Your task to perform on an android device: Clear the cart on bestbuy.com. Add razer naga to the cart on bestbuy.com, then select checkout. Image 0: 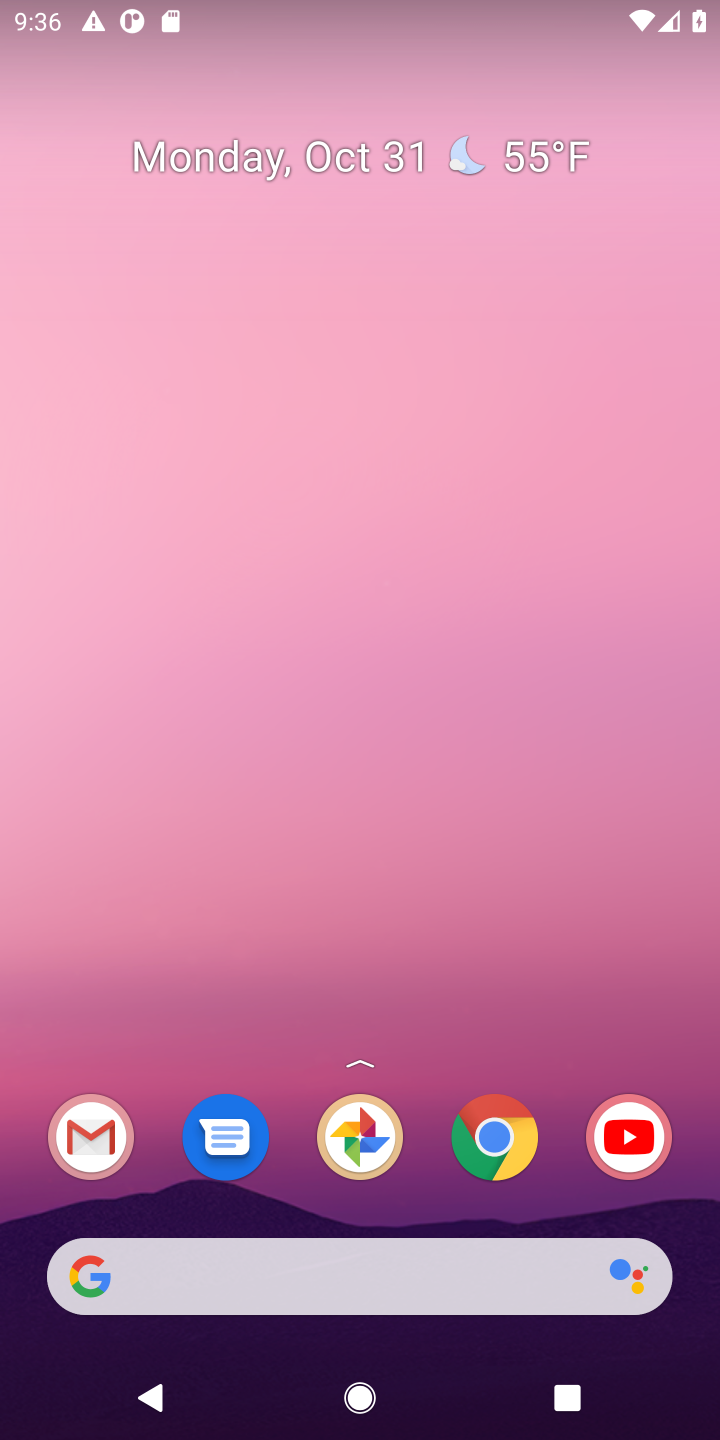
Step 0: click (485, 1153)
Your task to perform on an android device: Clear the cart on bestbuy.com. Add razer naga to the cart on bestbuy.com, then select checkout. Image 1: 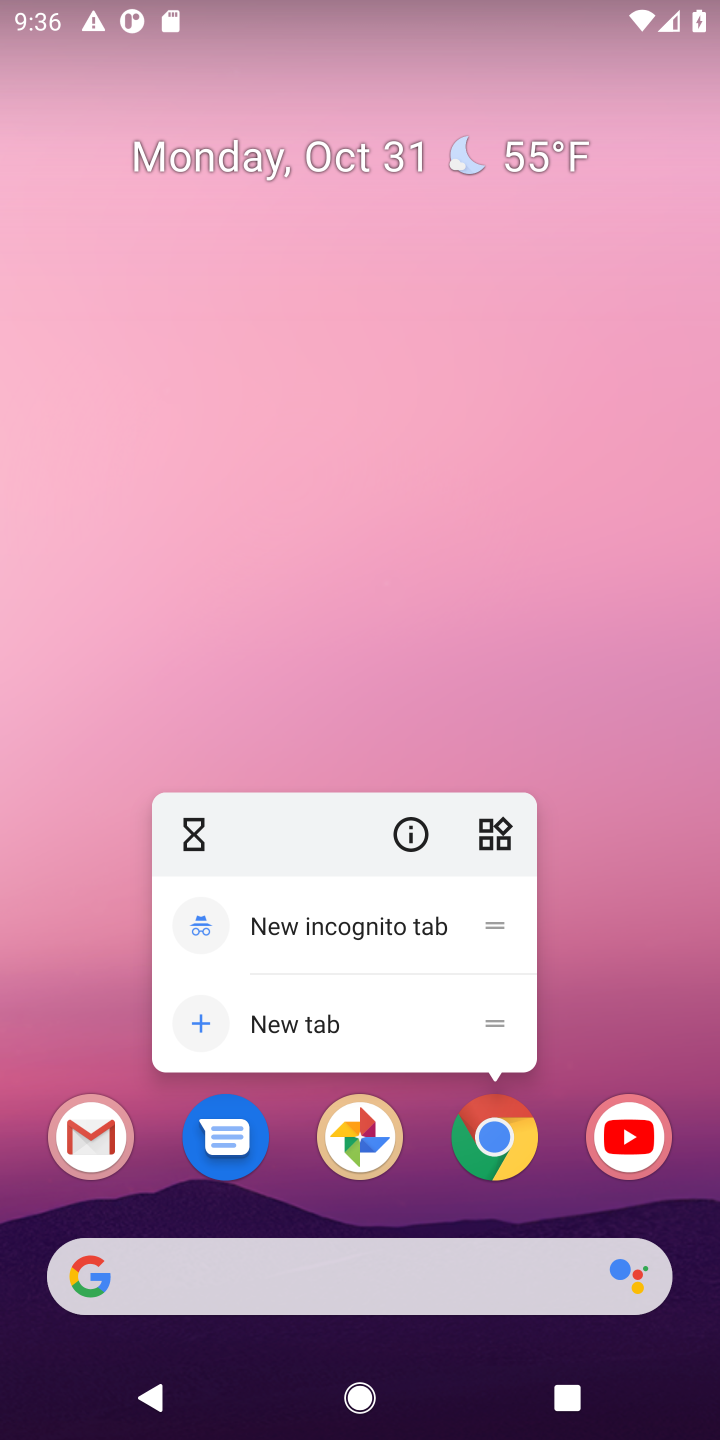
Step 1: click (497, 1153)
Your task to perform on an android device: Clear the cart on bestbuy.com. Add razer naga to the cart on bestbuy.com, then select checkout. Image 2: 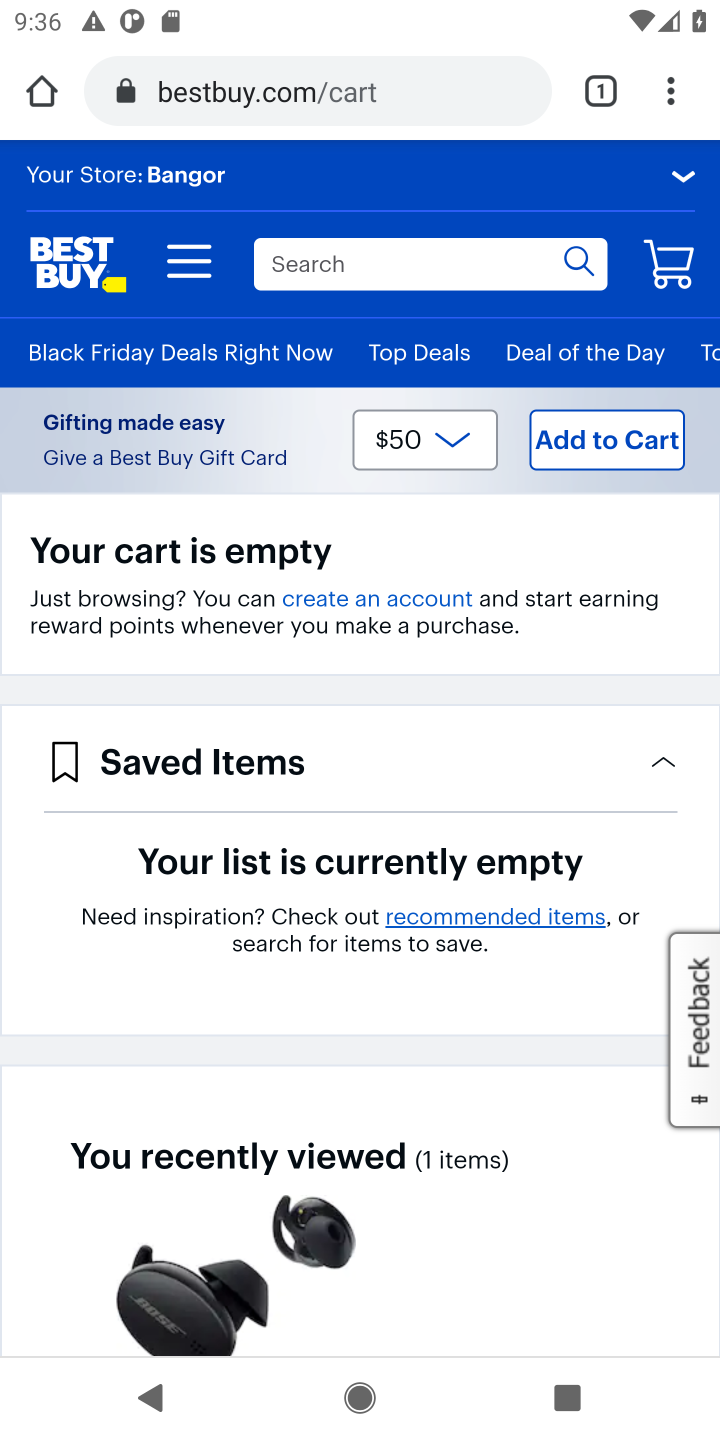
Step 2: click (303, 106)
Your task to perform on an android device: Clear the cart on bestbuy.com. Add razer naga to the cart on bestbuy.com, then select checkout. Image 3: 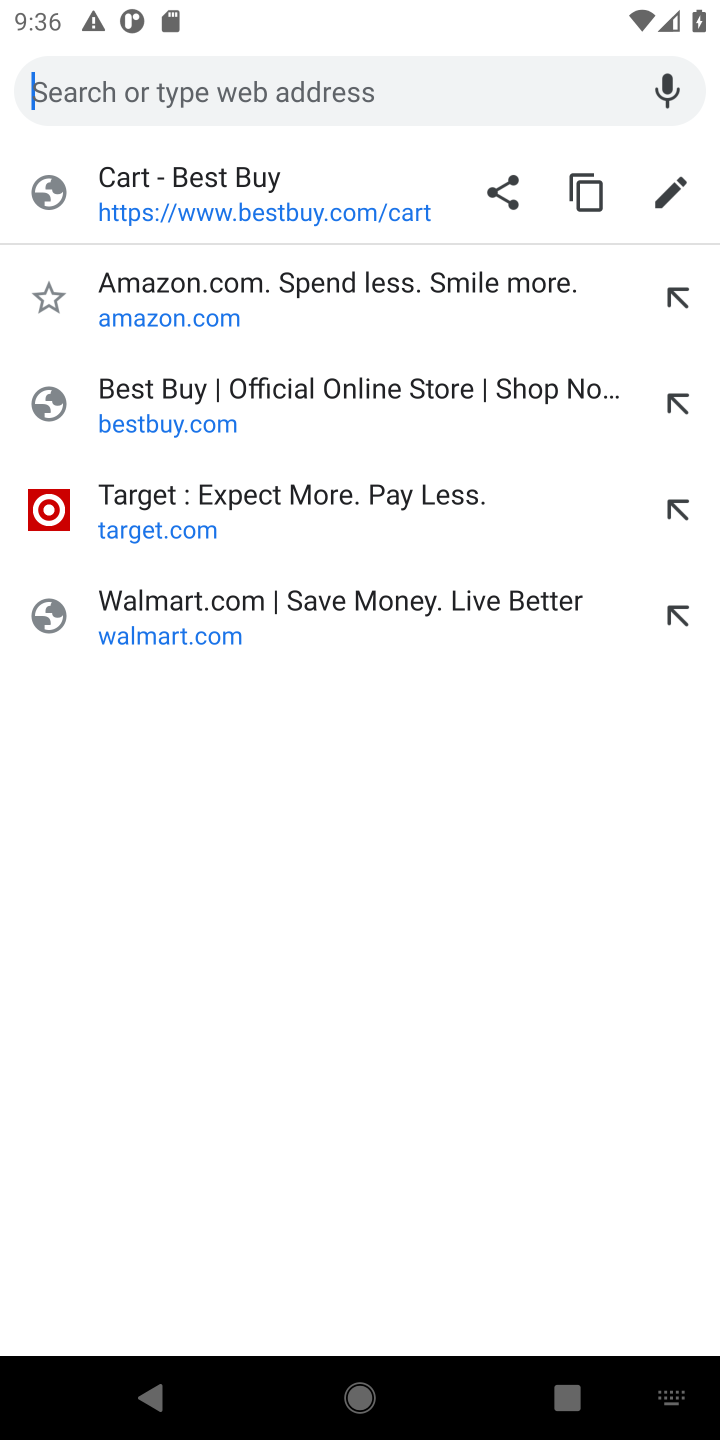
Step 3: click (217, 193)
Your task to perform on an android device: Clear the cart on bestbuy.com. Add razer naga to the cart on bestbuy.com, then select checkout. Image 4: 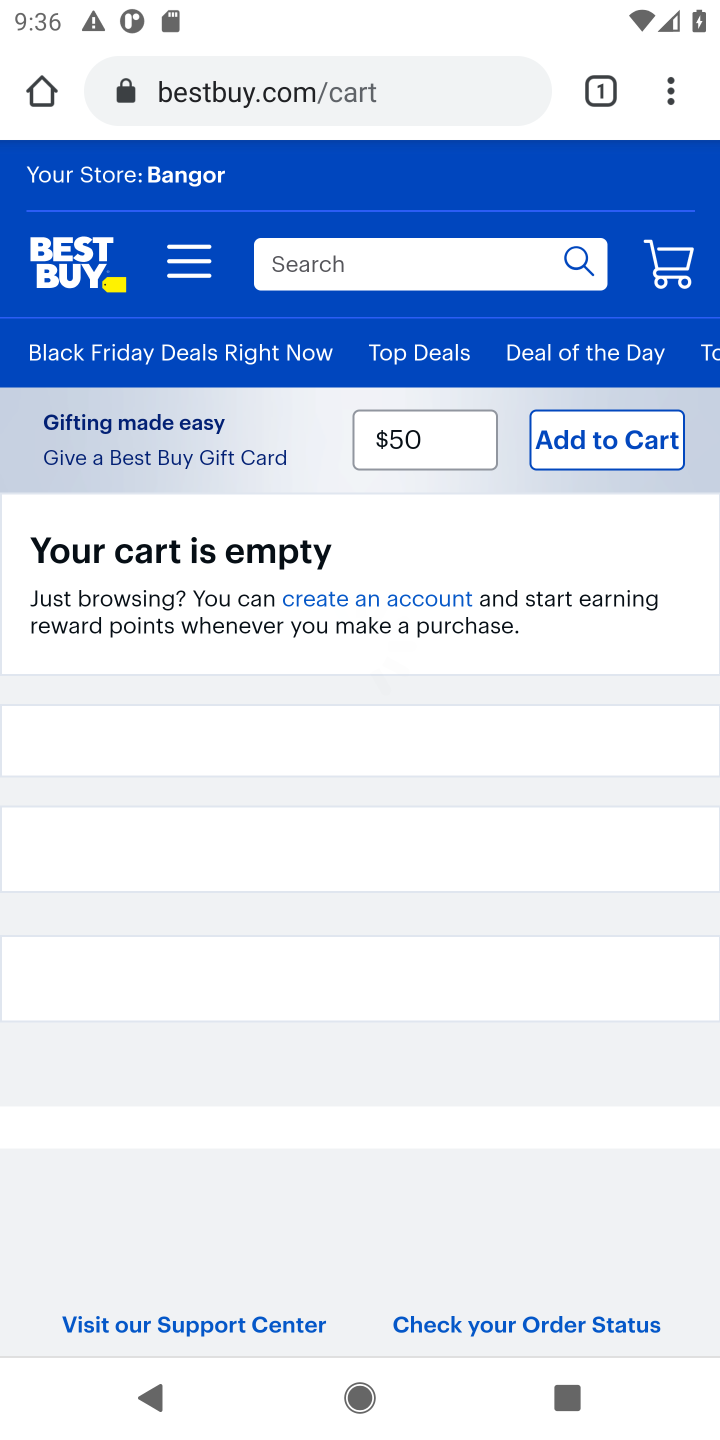
Step 4: click (426, 272)
Your task to perform on an android device: Clear the cart on bestbuy.com. Add razer naga to the cart on bestbuy.com, then select checkout. Image 5: 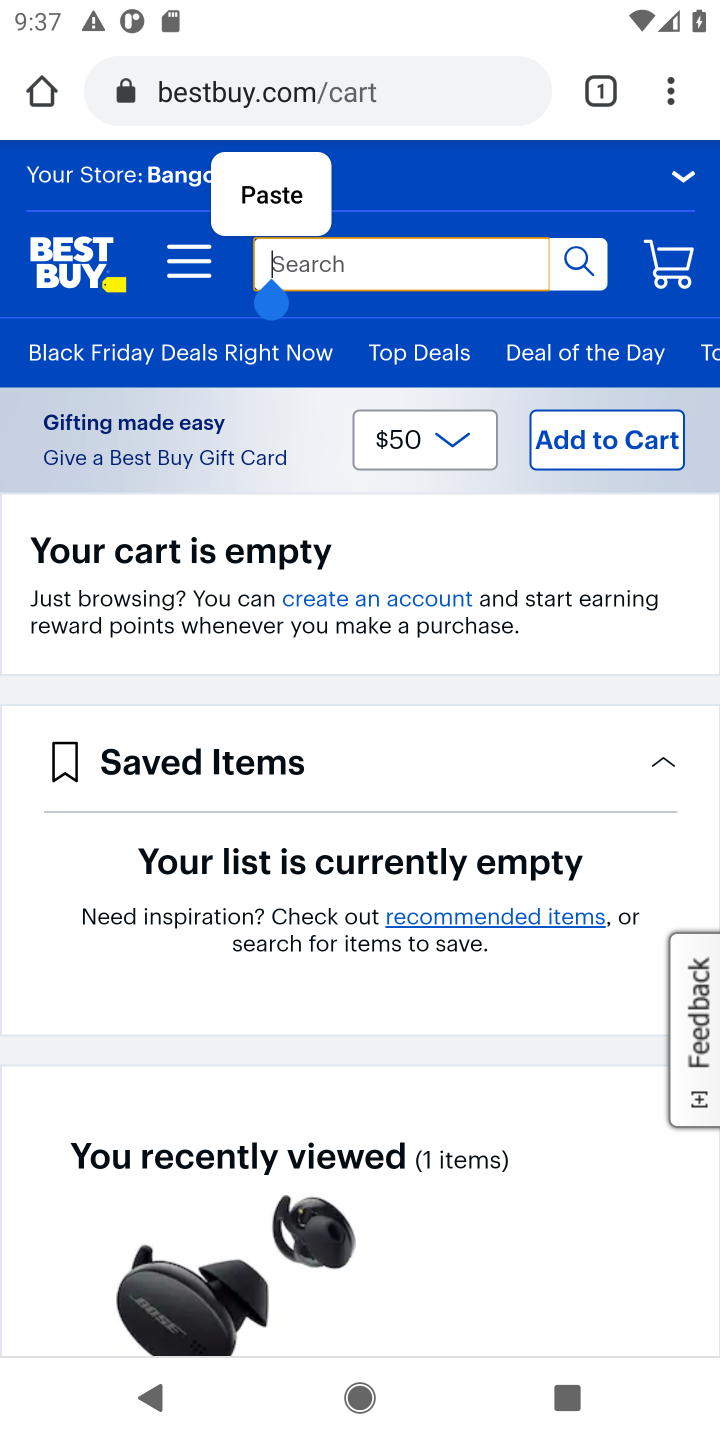
Step 5: click (407, 278)
Your task to perform on an android device: Clear the cart on bestbuy.com. Add razer naga to the cart on bestbuy.com, then select checkout. Image 6: 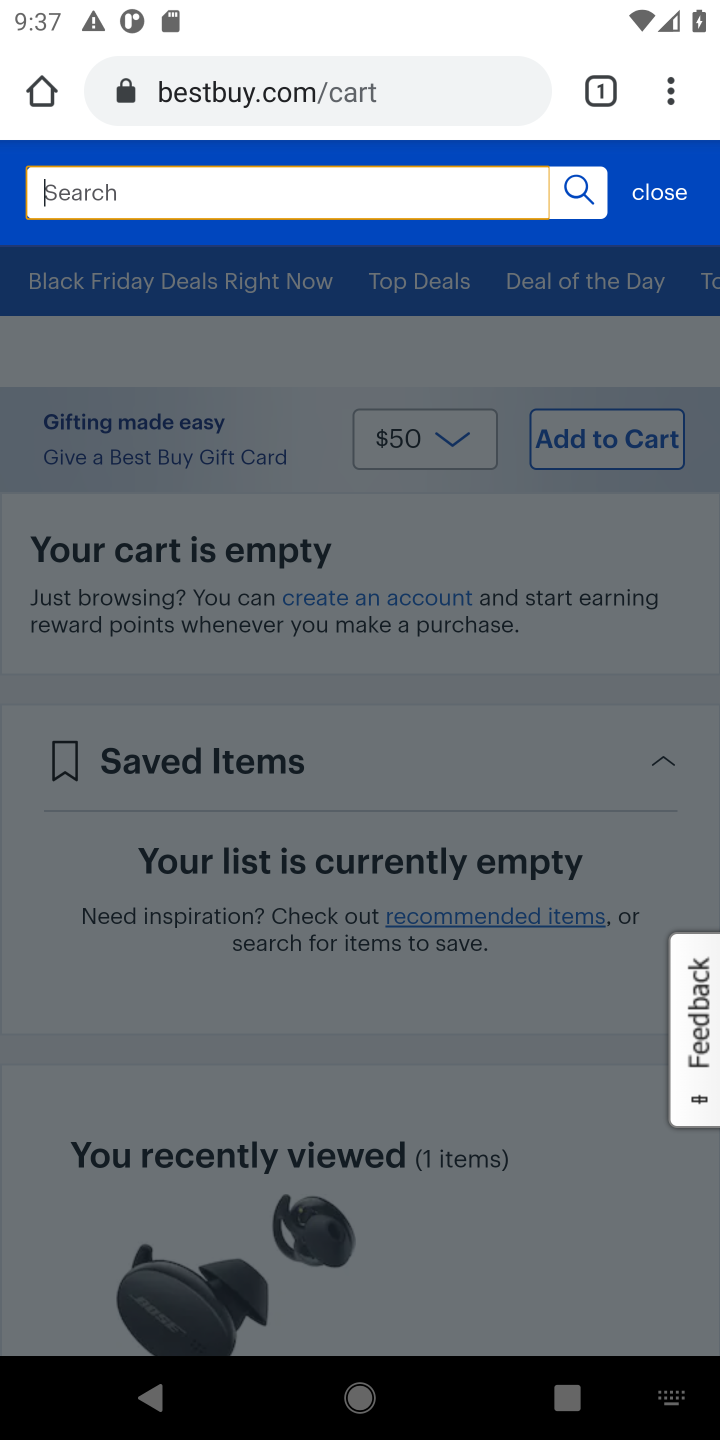
Step 6: type "razer naga"
Your task to perform on an android device: Clear the cart on bestbuy.com. Add razer naga to the cart on bestbuy.com, then select checkout. Image 7: 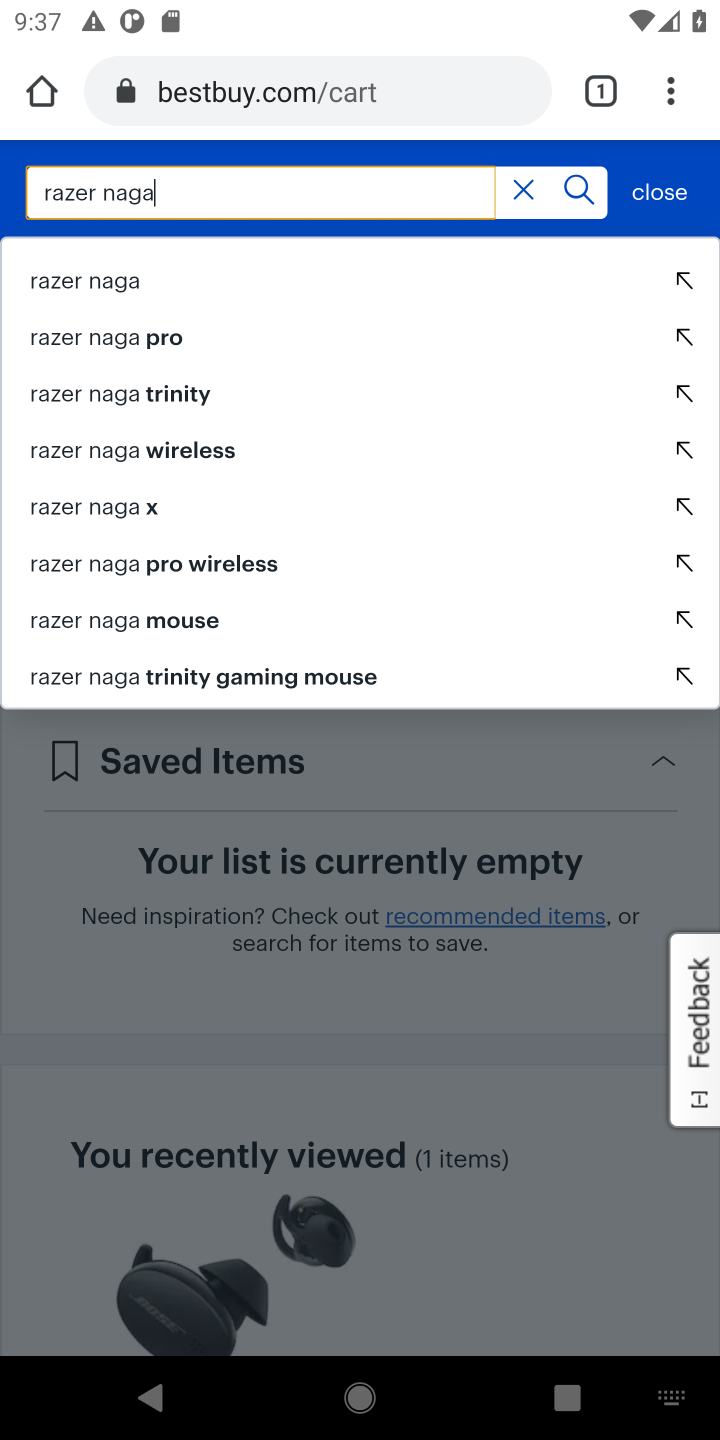
Step 7: click (31, 283)
Your task to perform on an android device: Clear the cart on bestbuy.com. Add razer naga to the cart on bestbuy.com, then select checkout. Image 8: 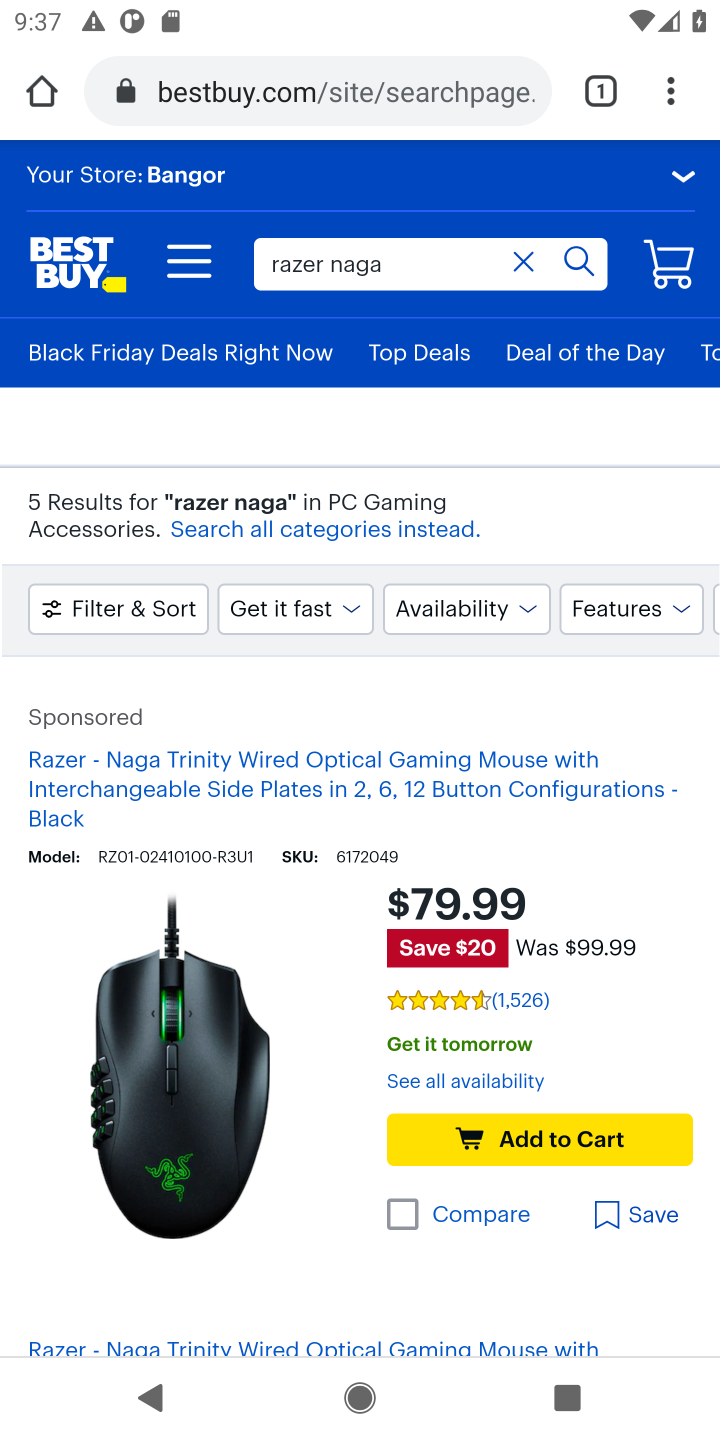
Step 8: click (203, 1136)
Your task to perform on an android device: Clear the cart on bestbuy.com. Add razer naga to the cart on bestbuy.com, then select checkout. Image 9: 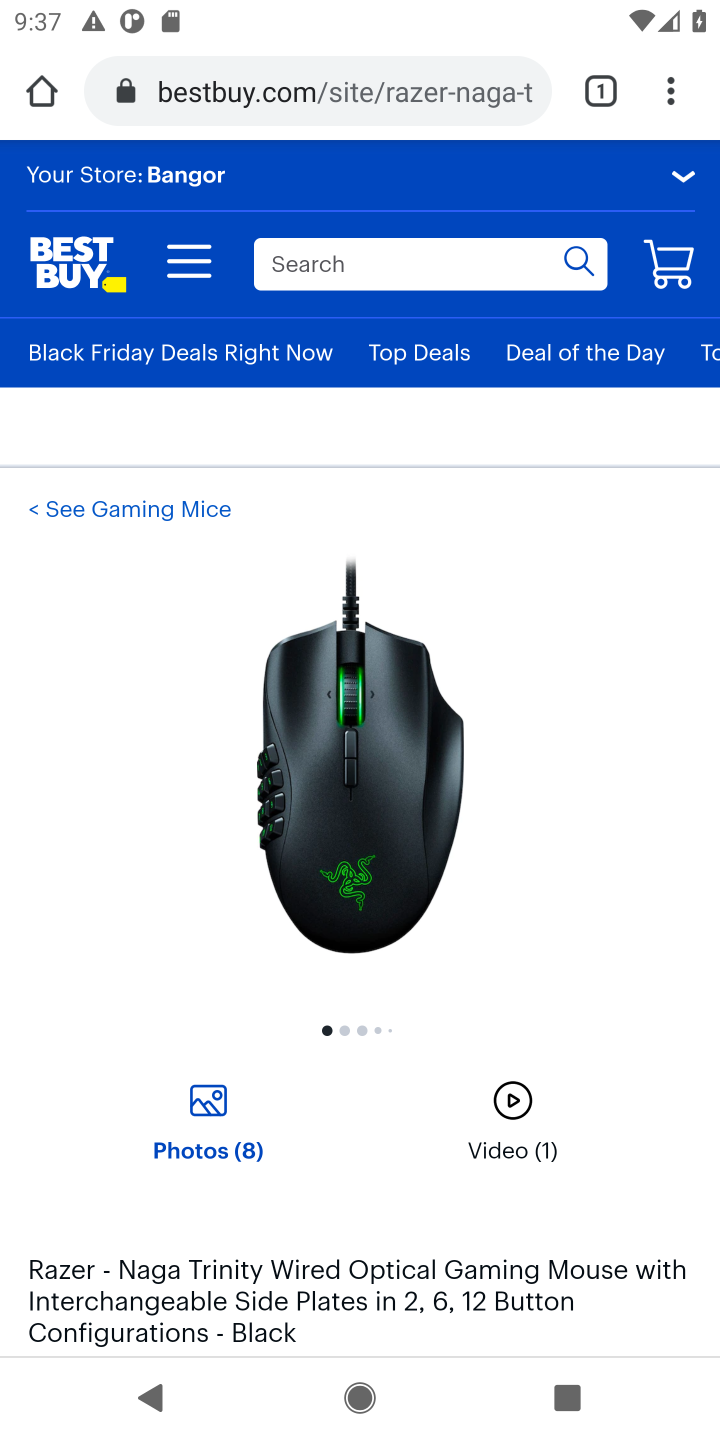
Step 9: drag from (415, 1054) to (407, 509)
Your task to perform on an android device: Clear the cart on bestbuy.com. Add razer naga to the cart on bestbuy.com, then select checkout. Image 10: 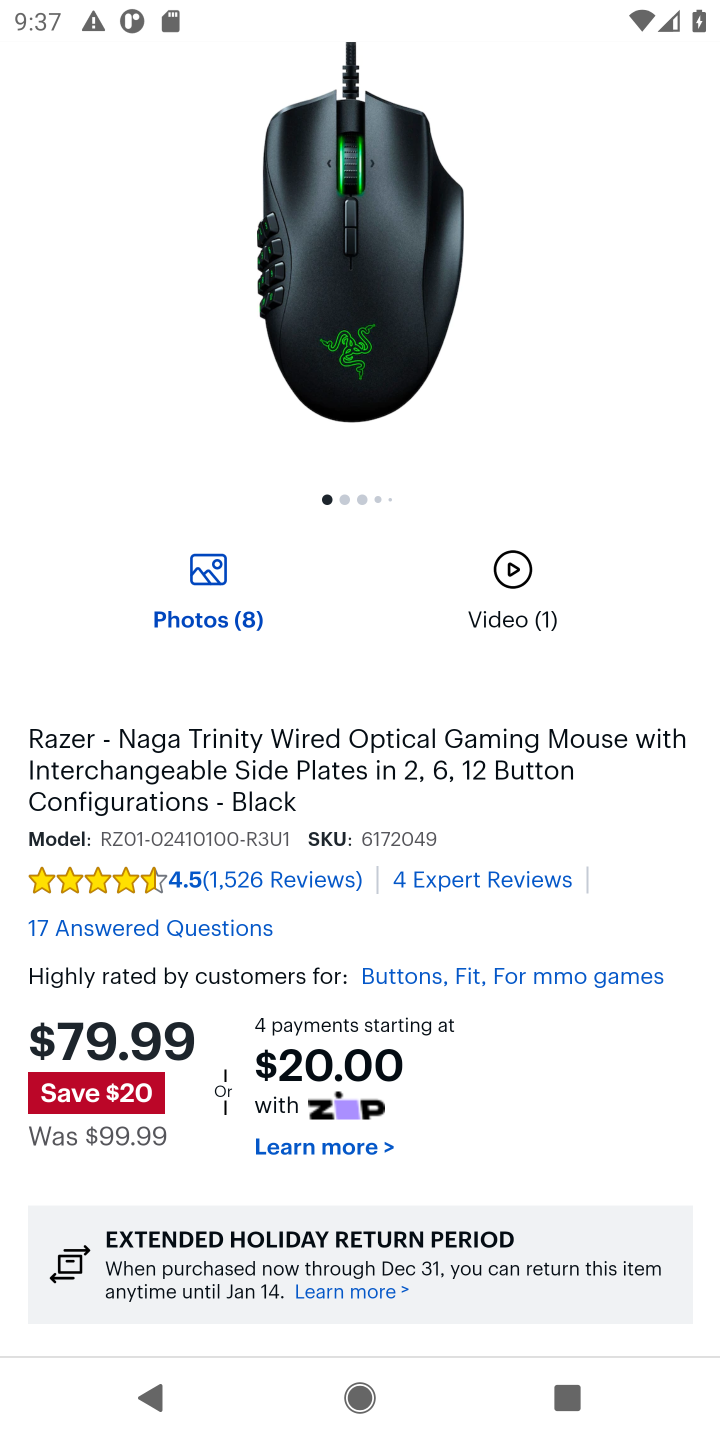
Step 10: drag from (311, 1103) to (323, 465)
Your task to perform on an android device: Clear the cart on bestbuy.com. Add razer naga to the cart on bestbuy.com, then select checkout. Image 11: 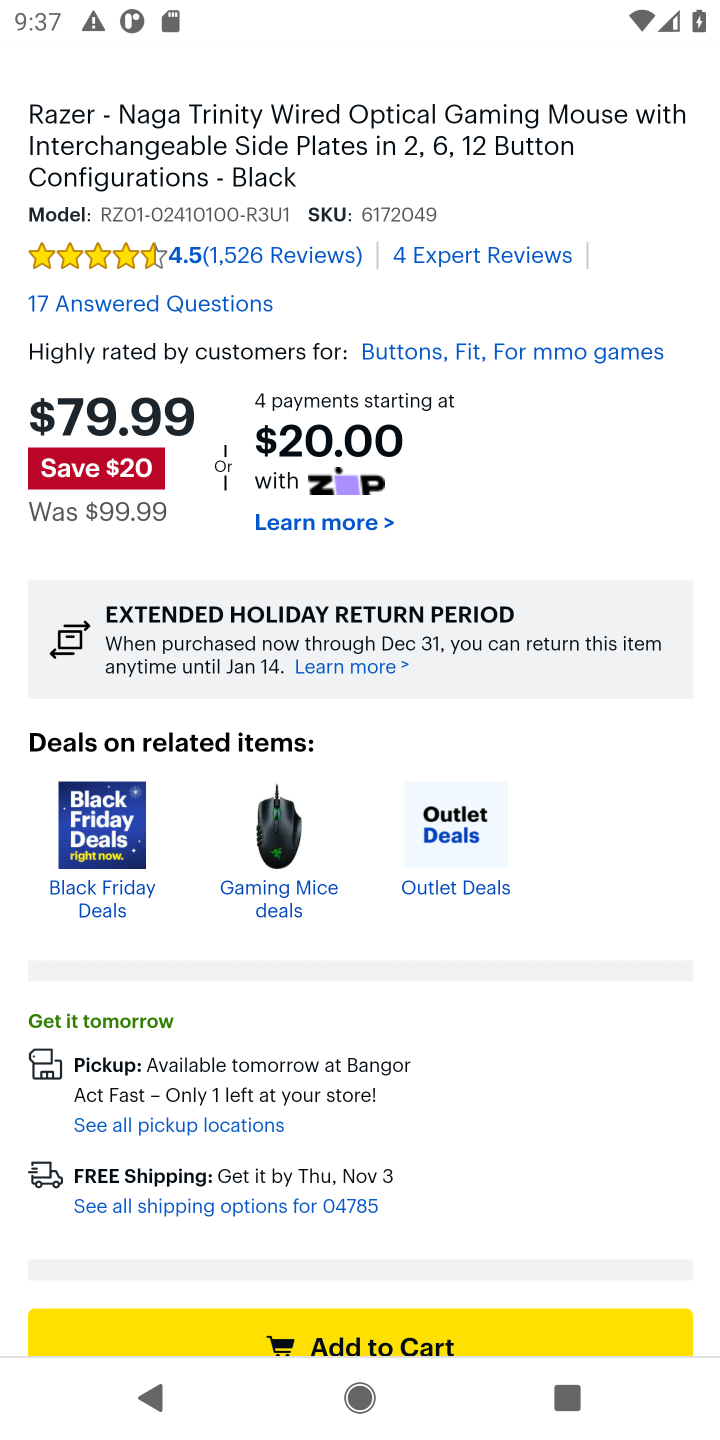
Step 11: drag from (320, 1028) to (340, 522)
Your task to perform on an android device: Clear the cart on bestbuy.com. Add razer naga to the cart on bestbuy.com, then select checkout. Image 12: 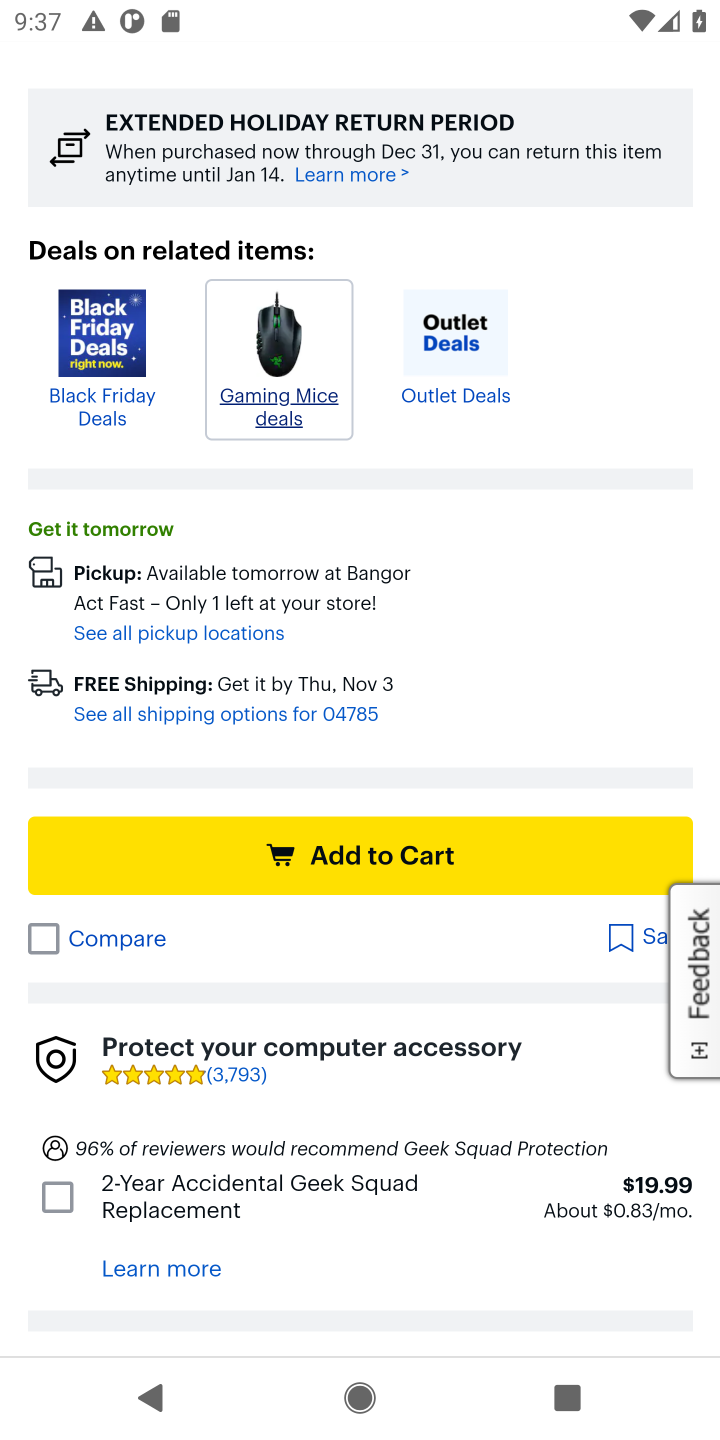
Step 12: click (331, 860)
Your task to perform on an android device: Clear the cart on bestbuy.com. Add razer naga to the cart on bestbuy.com, then select checkout. Image 13: 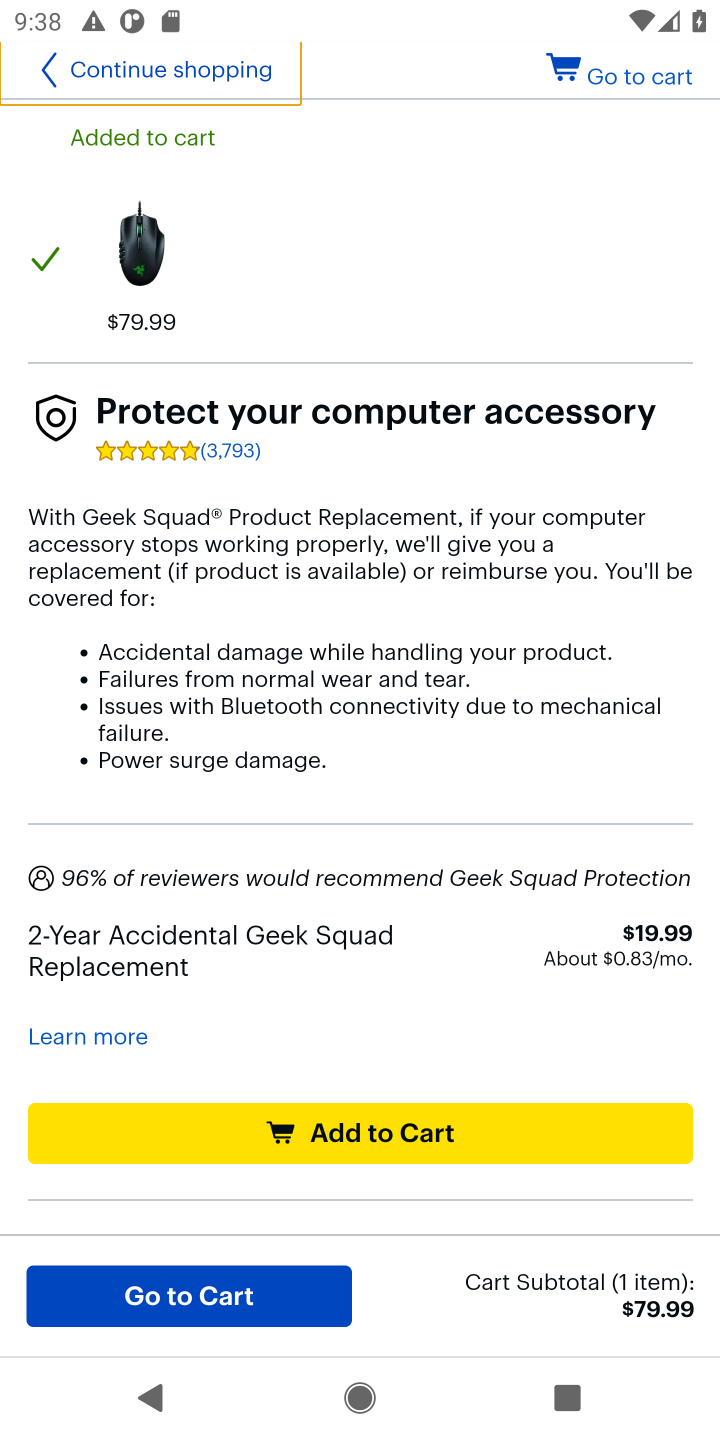
Step 13: drag from (348, 633) to (274, 1046)
Your task to perform on an android device: Clear the cart on bestbuy.com. Add razer naga to the cart on bestbuy.com, then select checkout. Image 14: 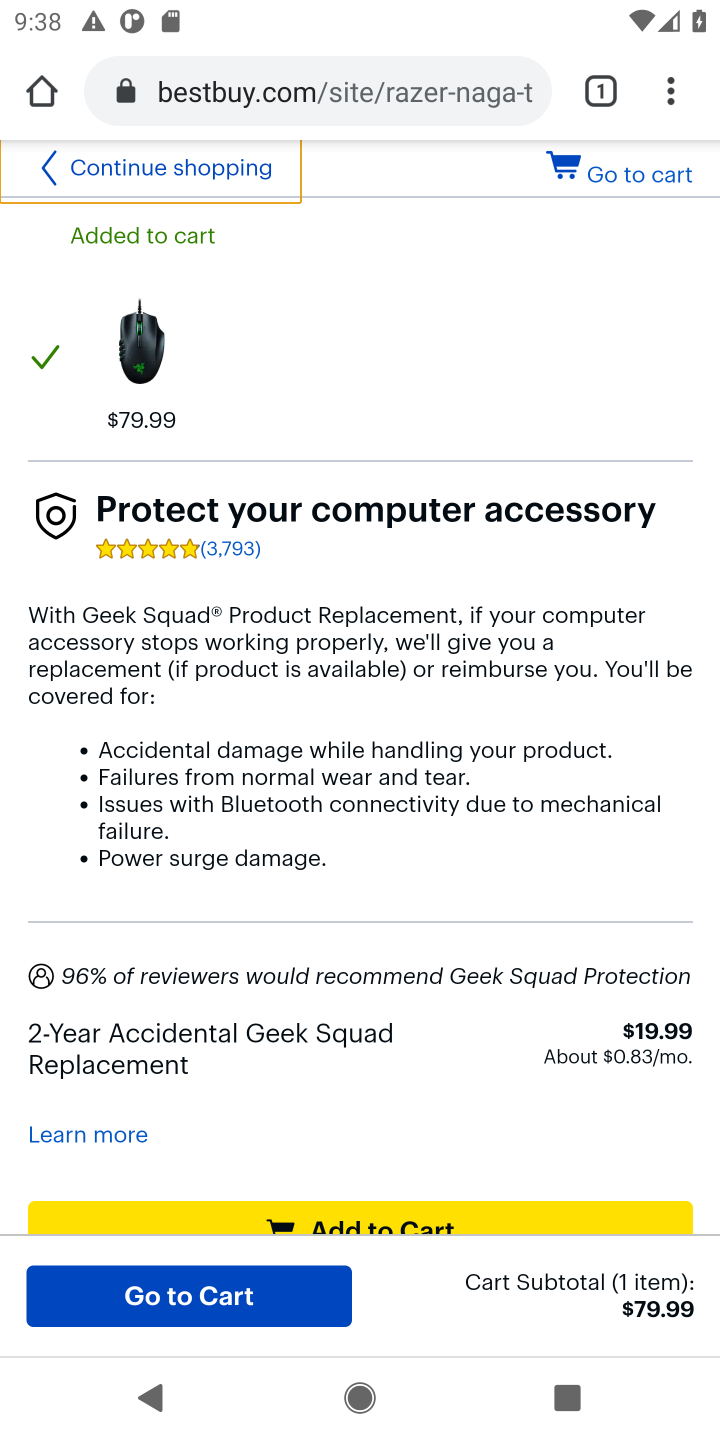
Step 14: drag from (328, 844) to (345, 427)
Your task to perform on an android device: Clear the cart on bestbuy.com. Add razer naga to the cart on bestbuy.com, then select checkout. Image 15: 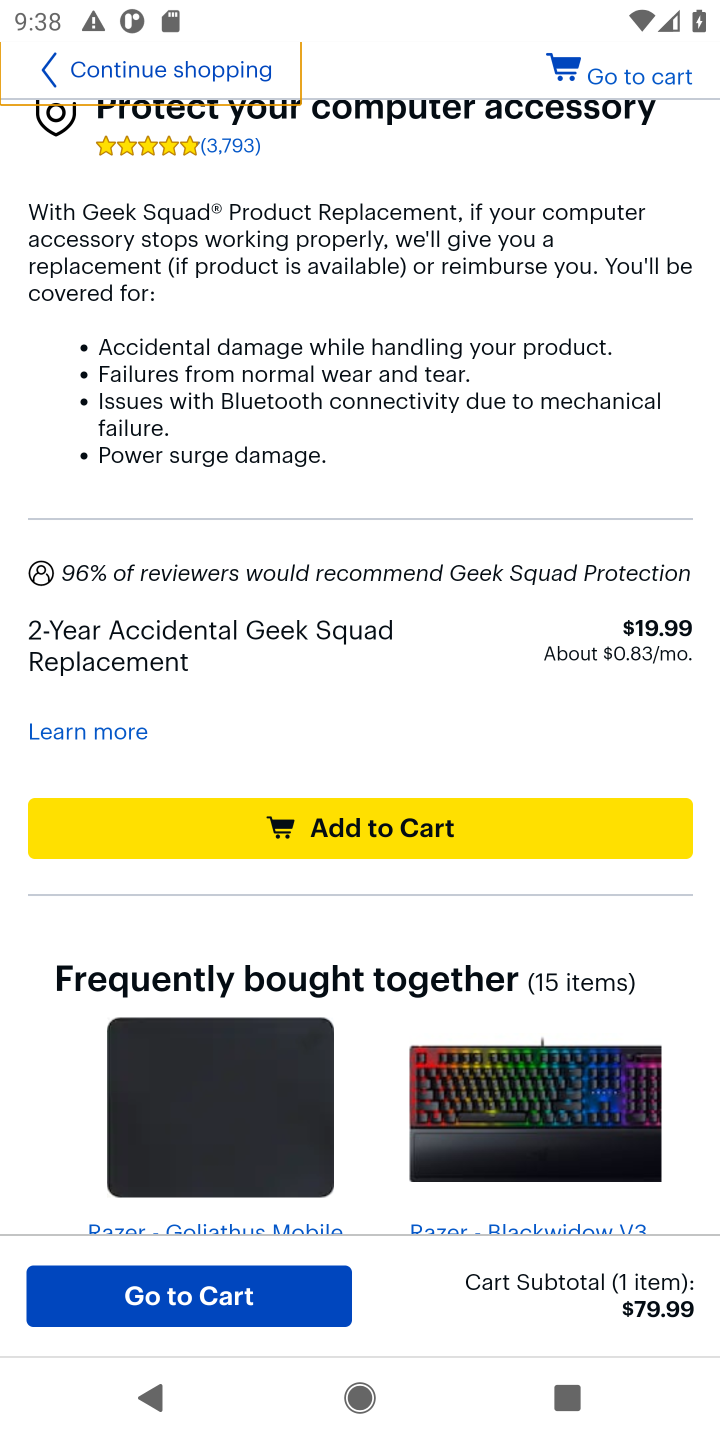
Step 15: click (187, 1299)
Your task to perform on an android device: Clear the cart on bestbuy.com. Add razer naga to the cart on bestbuy.com, then select checkout. Image 16: 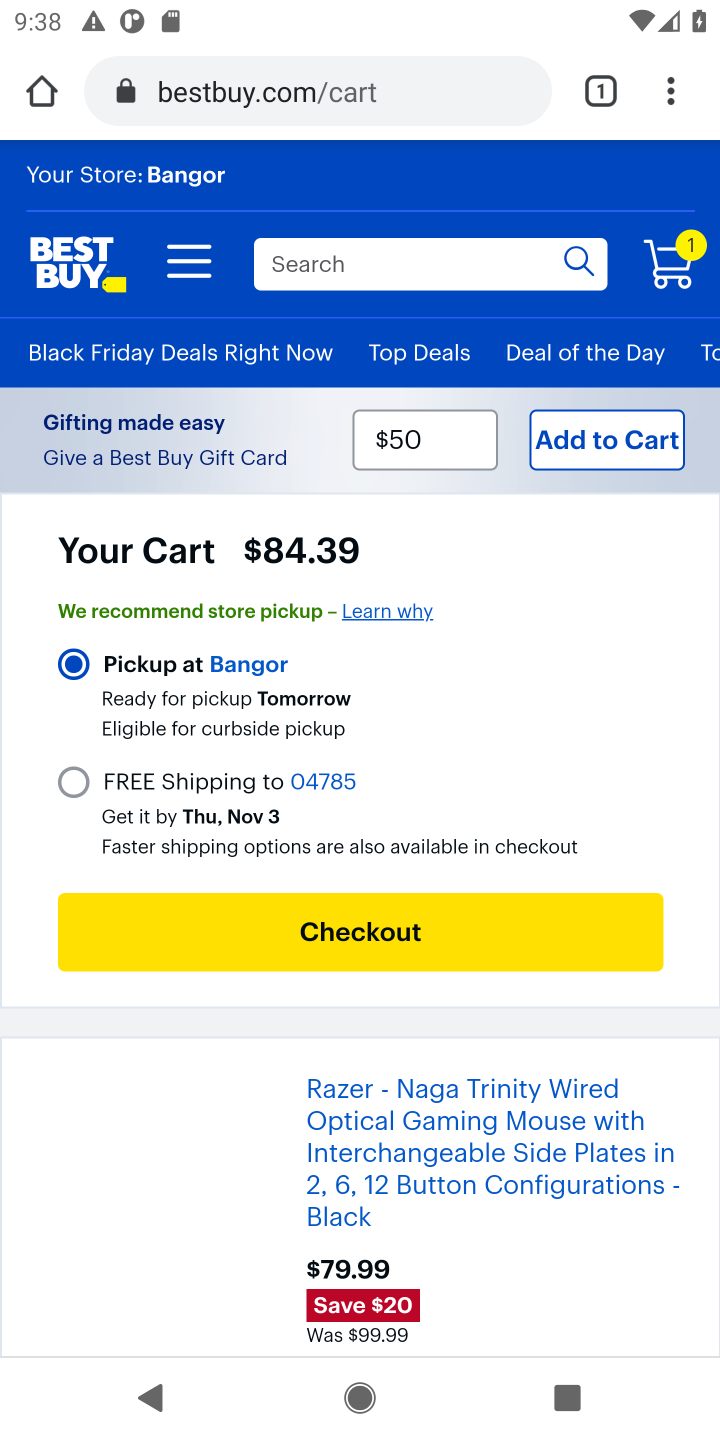
Step 16: click (373, 932)
Your task to perform on an android device: Clear the cart on bestbuy.com. Add razer naga to the cart on bestbuy.com, then select checkout. Image 17: 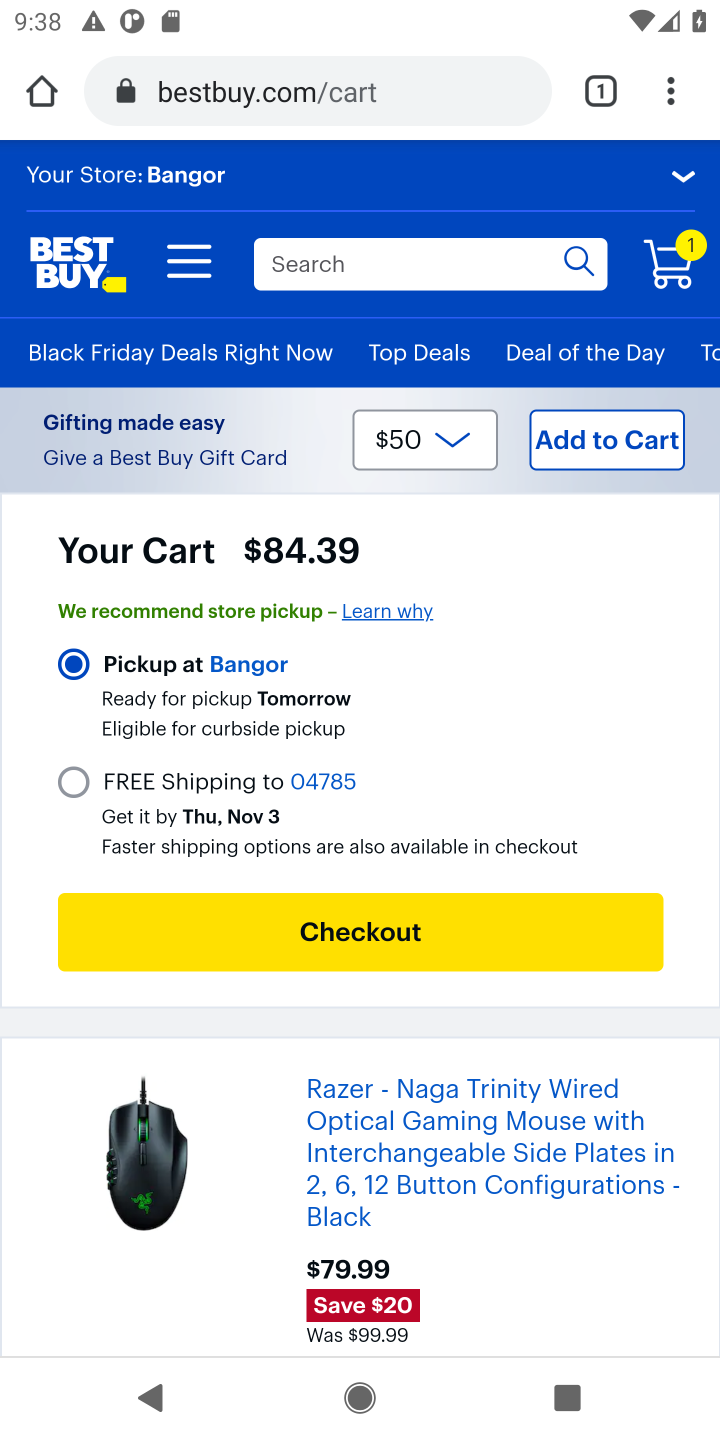
Step 17: click (345, 931)
Your task to perform on an android device: Clear the cart on bestbuy.com. Add razer naga to the cart on bestbuy.com, then select checkout. Image 18: 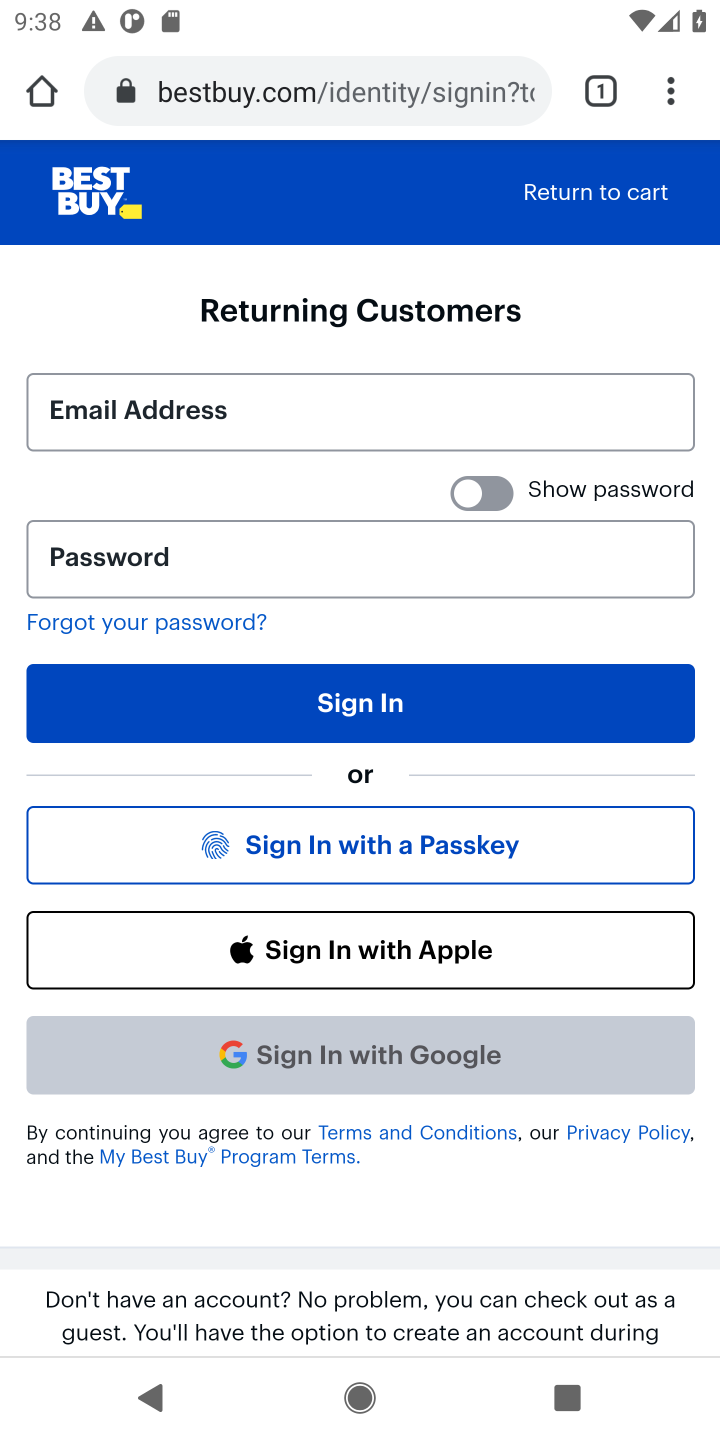
Step 18: task complete